Your task to perform on an android device: see tabs open on other devices in the chrome app Image 0: 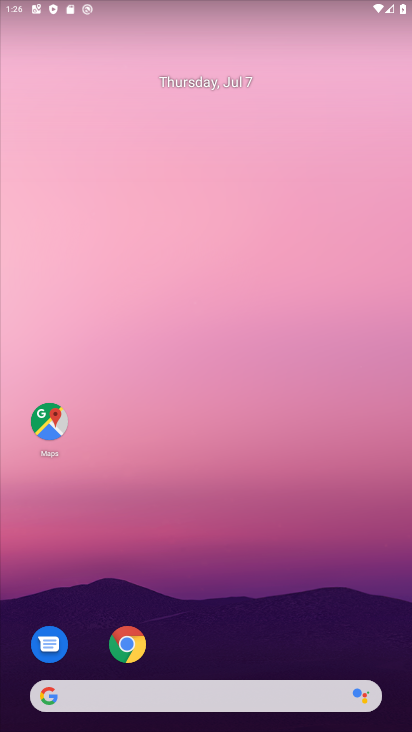
Step 0: click (138, 646)
Your task to perform on an android device: see tabs open on other devices in the chrome app Image 1: 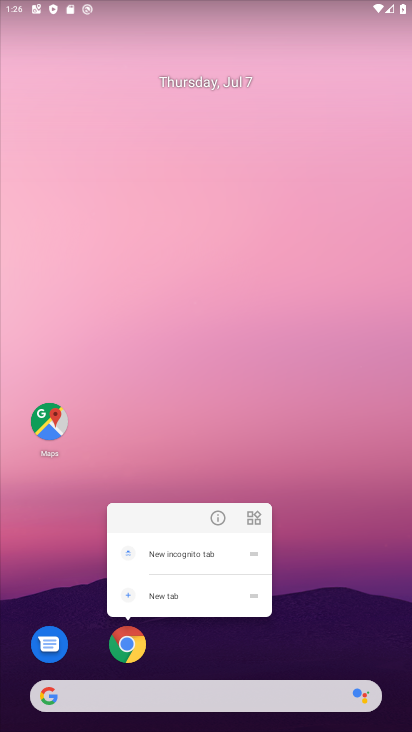
Step 1: click (133, 645)
Your task to perform on an android device: see tabs open on other devices in the chrome app Image 2: 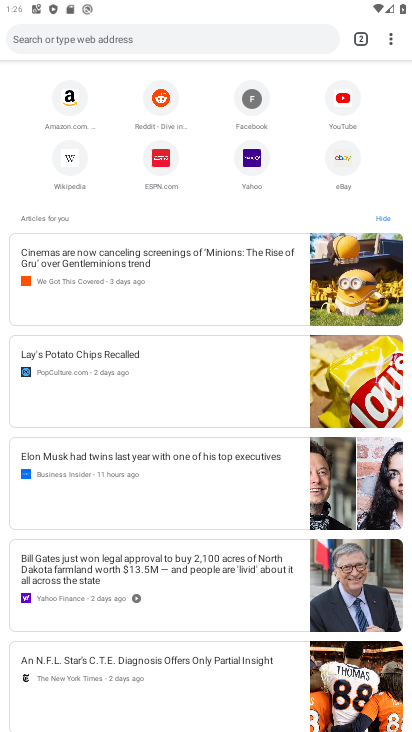
Step 2: click (397, 40)
Your task to perform on an android device: see tabs open on other devices in the chrome app Image 3: 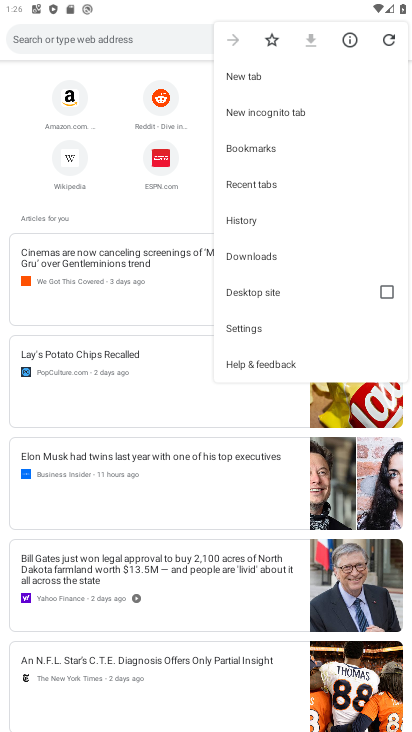
Step 3: click (285, 188)
Your task to perform on an android device: see tabs open on other devices in the chrome app Image 4: 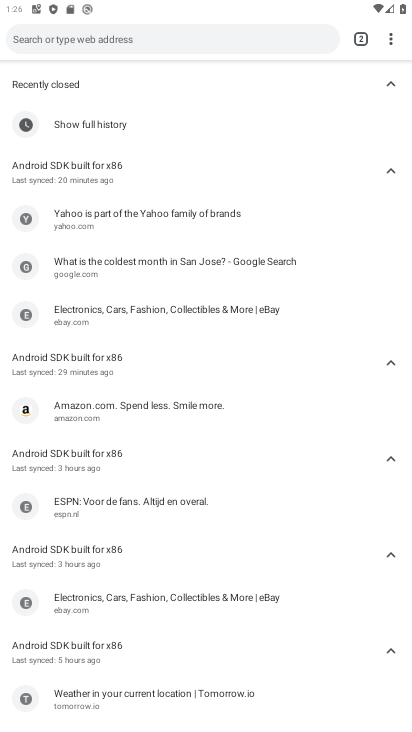
Step 4: task complete